Your task to perform on an android device: open a bookmark in the chrome app Image 0: 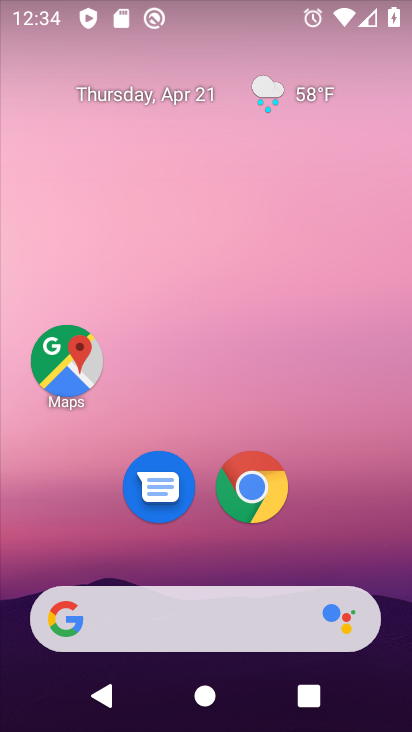
Step 0: click (248, 494)
Your task to perform on an android device: open a bookmark in the chrome app Image 1: 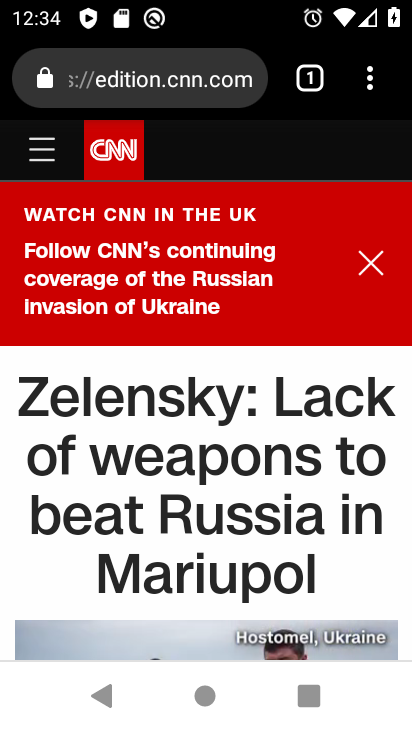
Step 1: click (370, 83)
Your task to perform on an android device: open a bookmark in the chrome app Image 2: 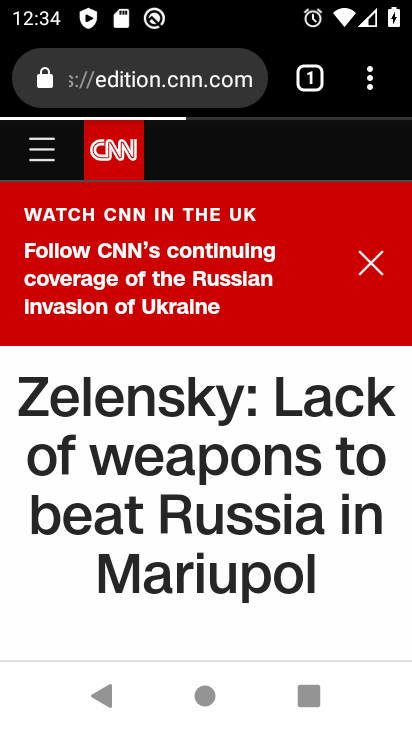
Step 2: click (370, 83)
Your task to perform on an android device: open a bookmark in the chrome app Image 3: 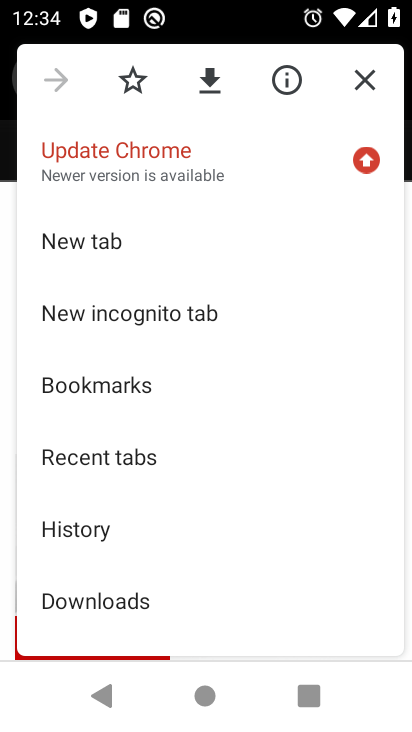
Step 3: click (79, 380)
Your task to perform on an android device: open a bookmark in the chrome app Image 4: 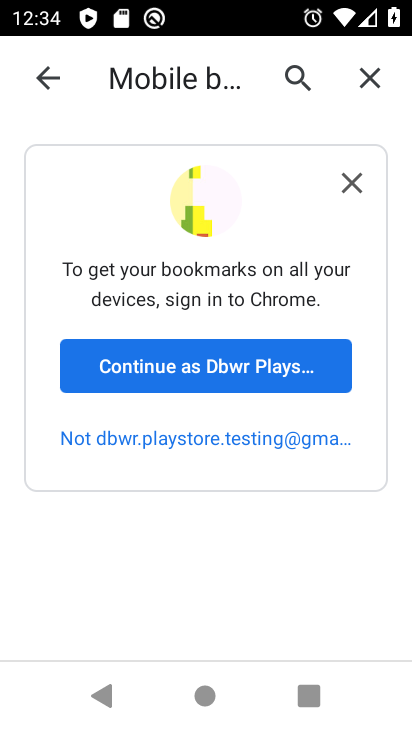
Step 4: click (128, 374)
Your task to perform on an android device: open a bookmark in the chrome app Image 5: 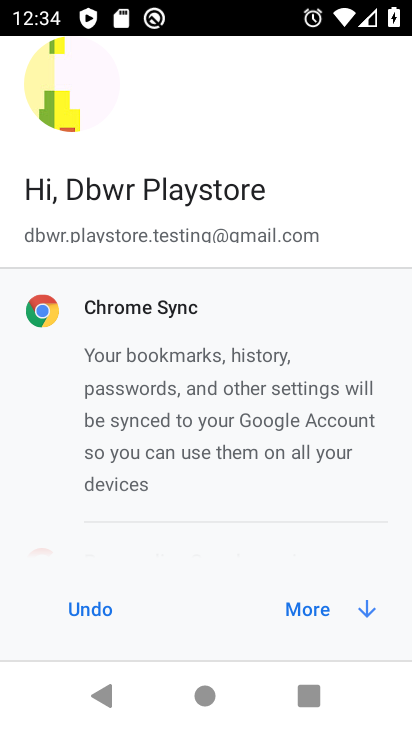
Step 5: click (287, 615)
Your task to perform on an android device: open a bookmark in the chrome app Image 6: 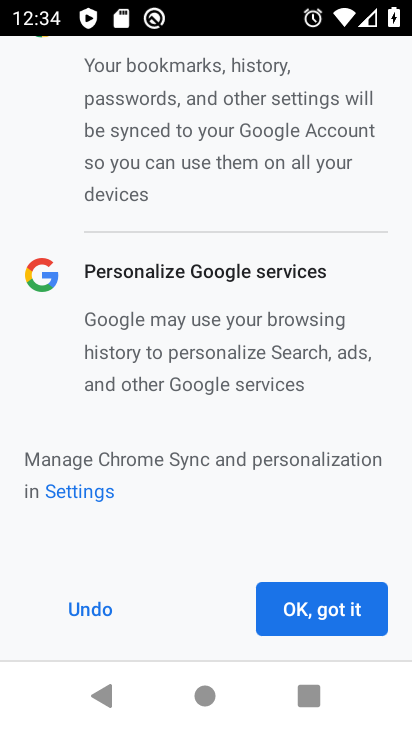
Step 6: click (287, 615)
Your task to perform on an android device: open a bookmark in the chrome app Image 7: 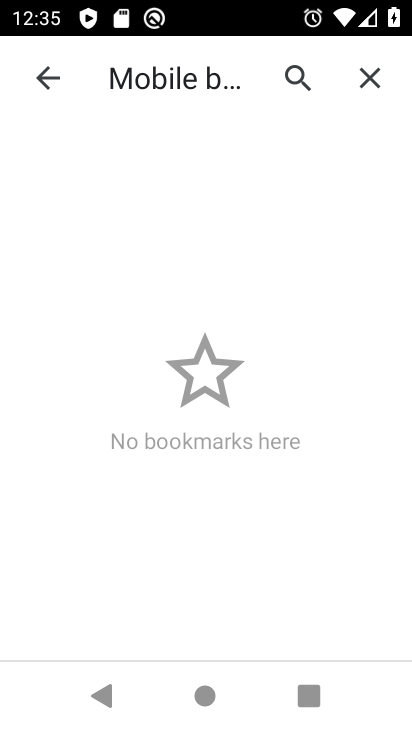
Step 7: task complete